Your task to perform on an android device: Go to Maps Image 0: 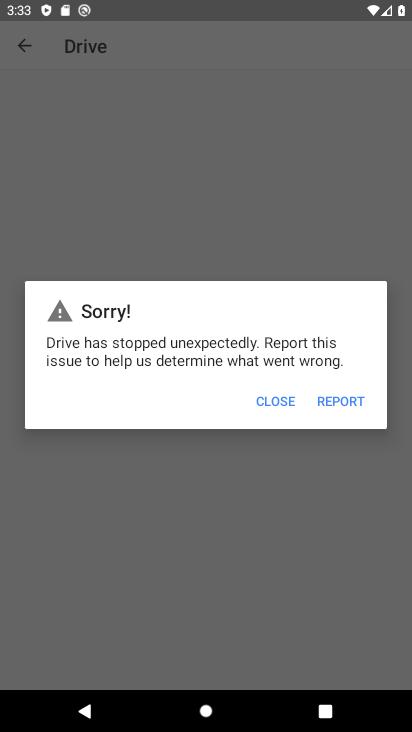
Step 0: drag from (332, 601) to (355, 122)
Your task to perform on an android device: Go to Maps Image 1: 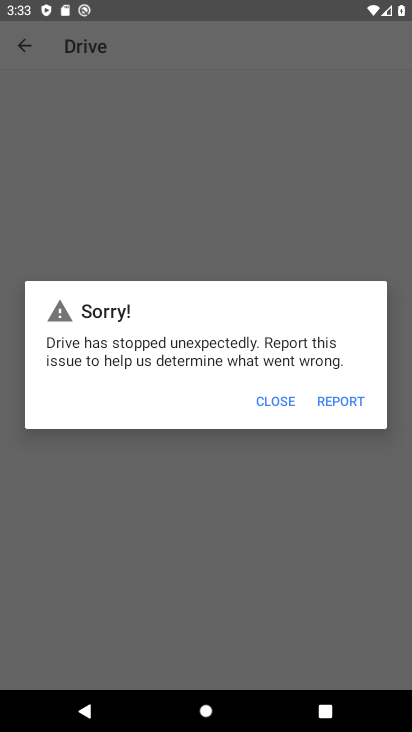
Step 1: press home button
Your task to perform on an android device: Go to Maps Image 2: 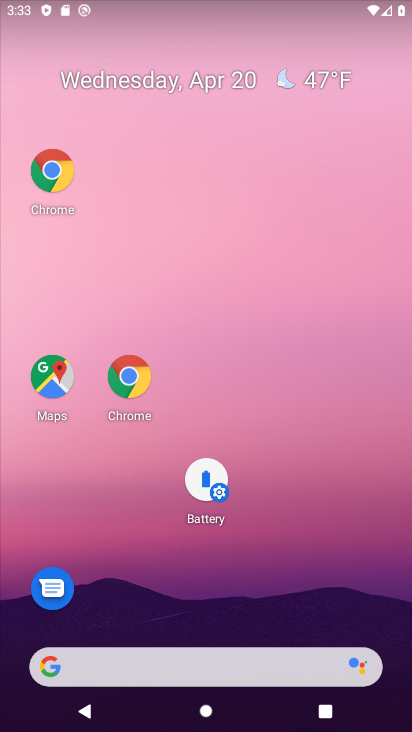
Step 2: drag from (337, 407) to (360, 14)
Your task to perform on an android device: Go to Maps Image 3: 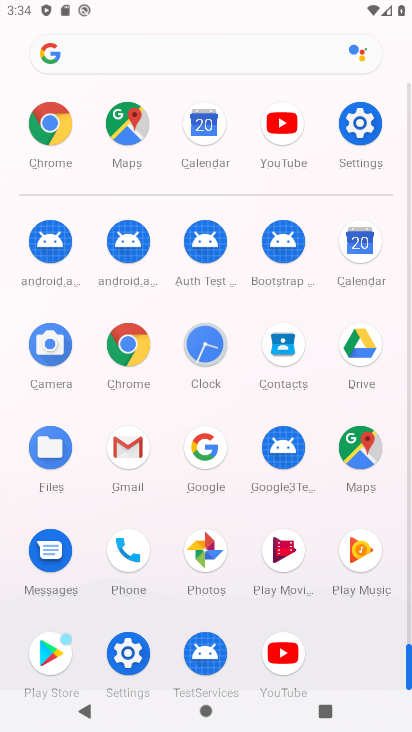
Step 3: click (346, 445)
Your task to perform on an android device: Go to Maps Image 4: 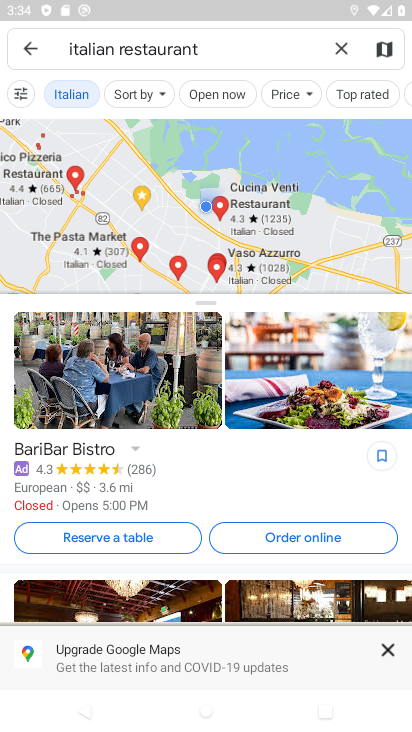
Step 4: click (34, 52)
Your task to perform on an android device: Go to Maps Image 5: 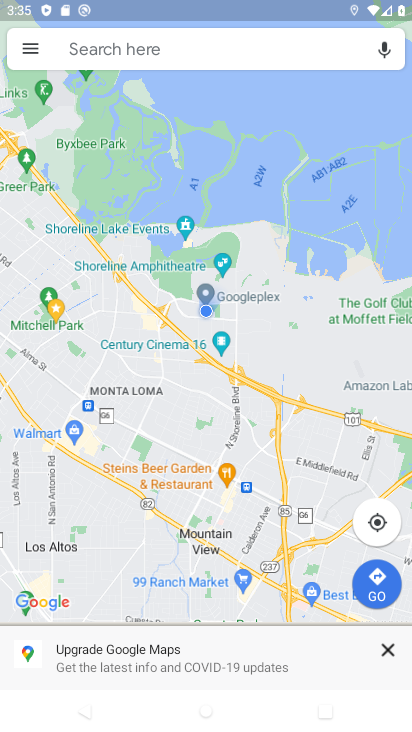
Step 5: task complete